Your task to perform on an android device: check storage Image 0: 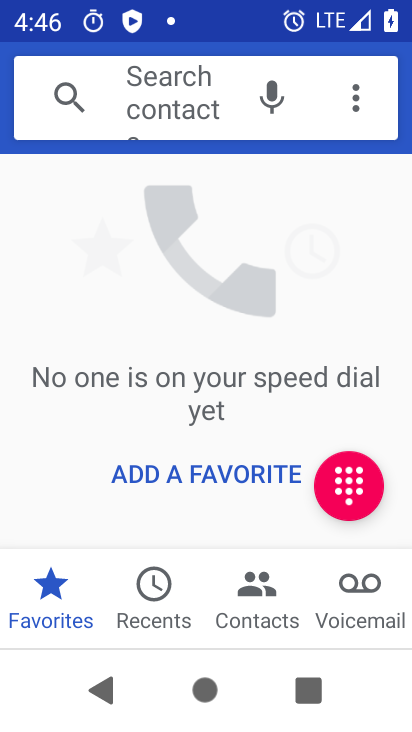
Step 0: press home button
Your task to perform on an android device: check storage Image 1: 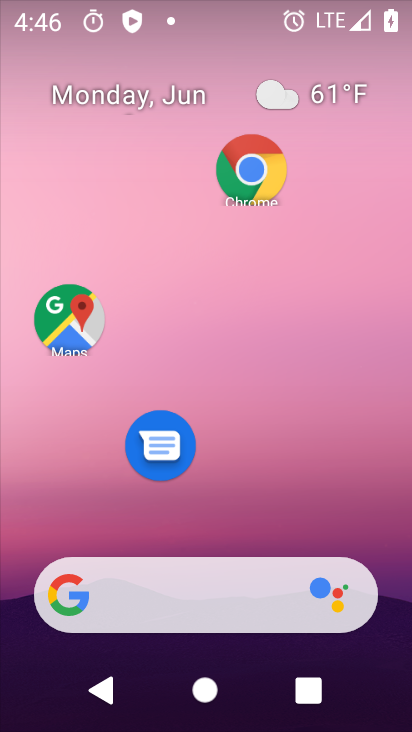
Step 1: click (241, 90)
Your task to perform on an android device: check storage Image 2: 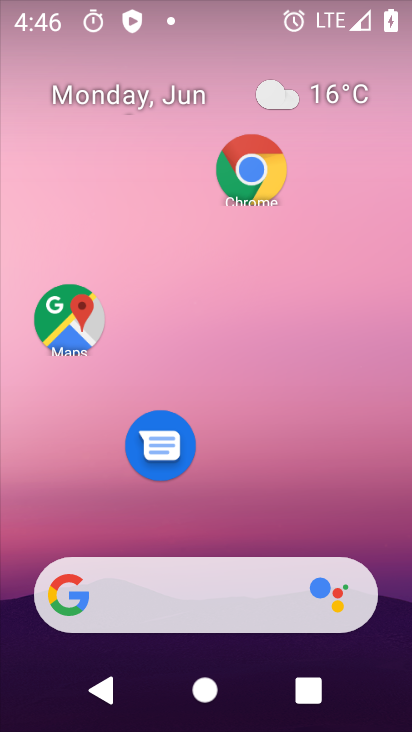
Step 2: drag from (189, 523) to (264, 172)
Your task to perform on an android device: check storage Image 3: 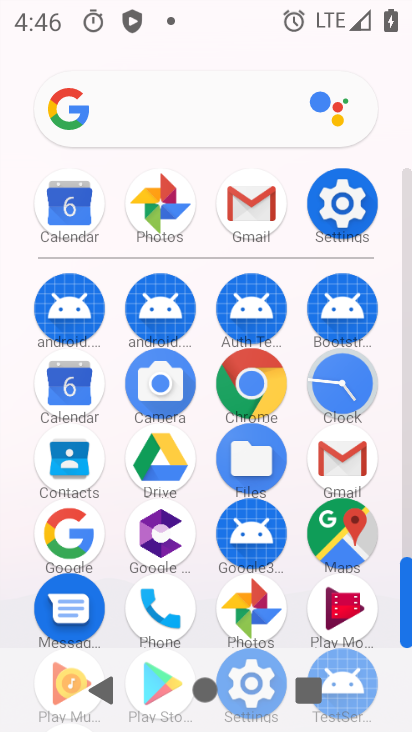
Step 3: click (348, 203)
Your task to perform on an android device: check storage Image 4: 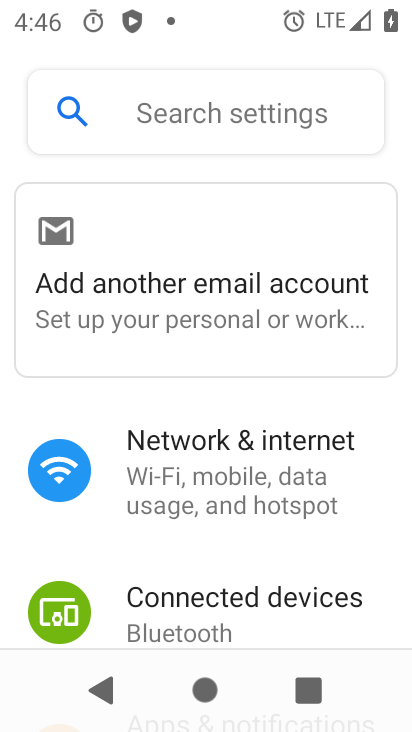
Step 4: drag from (208, 600) to (221, 484)
Your task to perform on an android device: check storage Image 5: 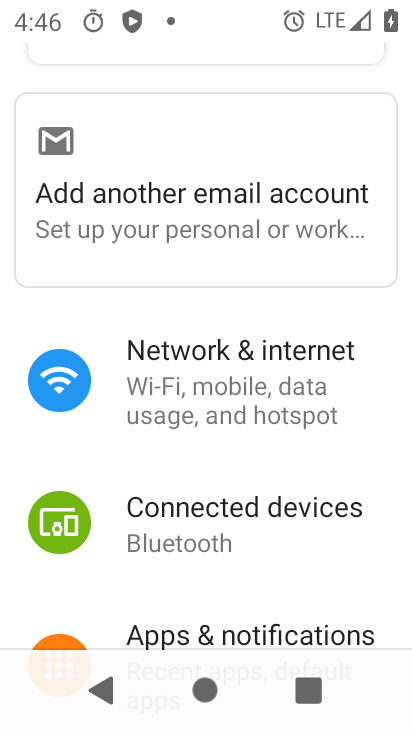
Step 5: drag from (221, 600) to (217, 410)
Your task to perform on an android device: check storage Image 6: 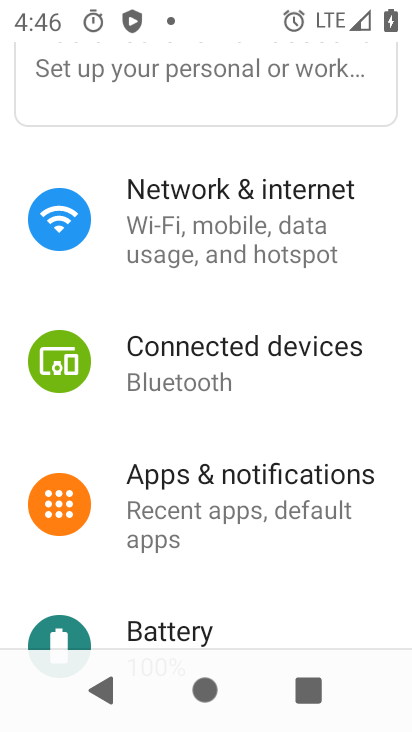
Step 6: drag from (202, 596) to (219, 366)
Your task to perform on an android device: check storage Image 7: 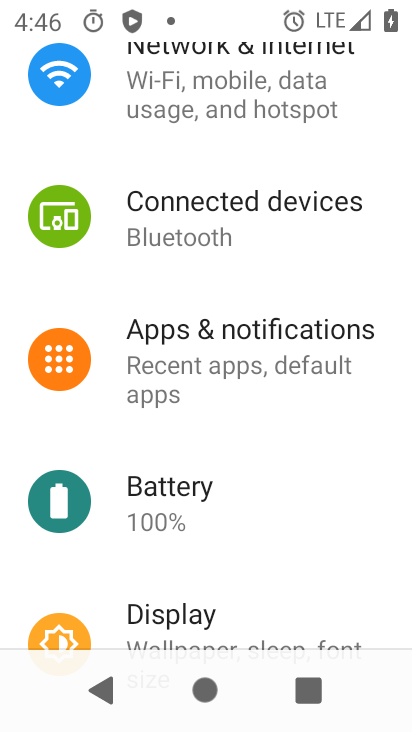
Step 7: drag from (225, 551) to (237, 343)
Your task to perform on an android device: check storage Image 8: 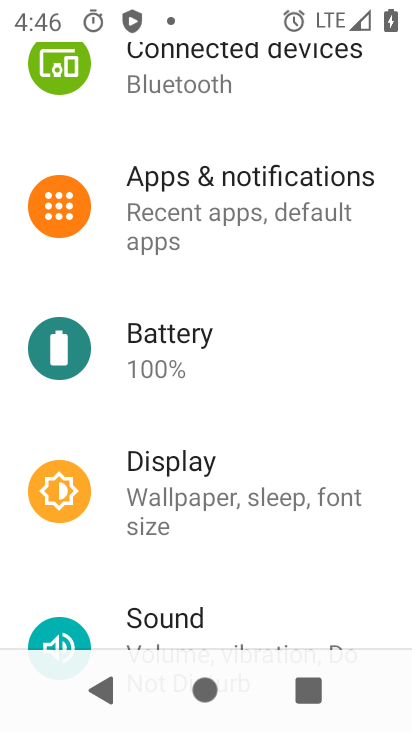
Step 8: drag from (209, 581) to (276, 265)
Your task to perform on an android device: check storage Image 9: 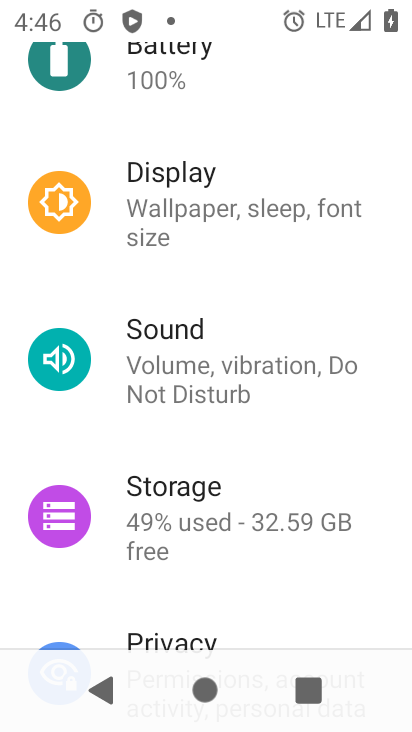
Step 9: click (193, 518)
Your task to perform on an android device: check storage Image 10: 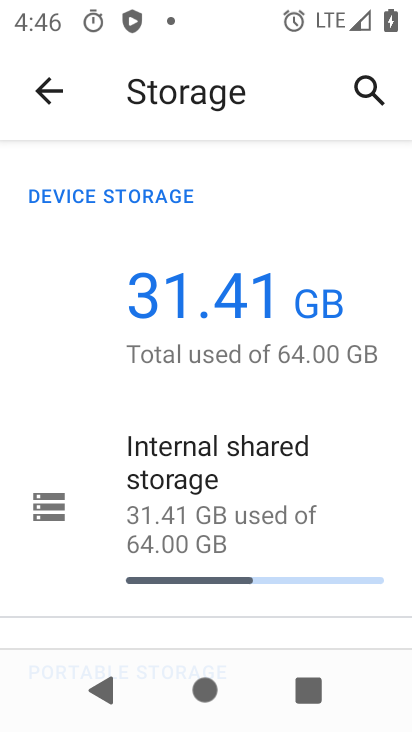
Step 10: task complete